Your task to perform on an android device: Go to wifi settings Image 0: 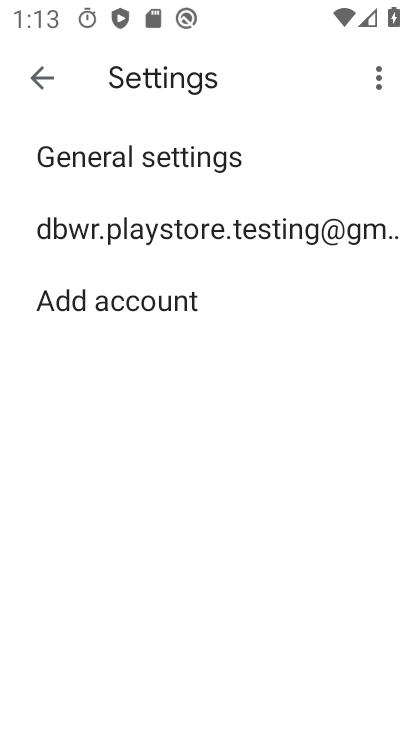
Step 0: press home button
Your task to perform on an android device: Go to wifi settings Image 1: 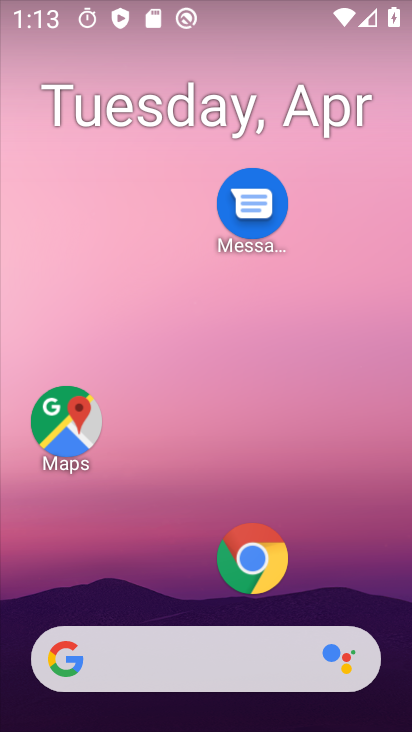
Step 1: drag from (255, 478) to (291, 41)
Your task to perform on an android device: Go to wifi settings Image 2: 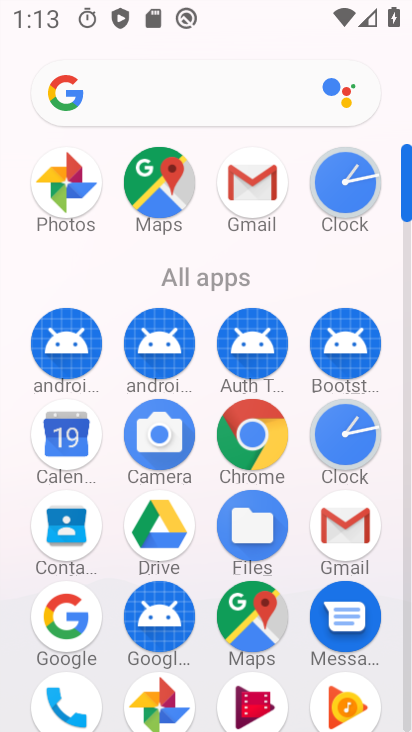
Step 2: drag from (206, 598) to (229, 216)
Your task to perform on an android device: Go to wifi settings Image 3: 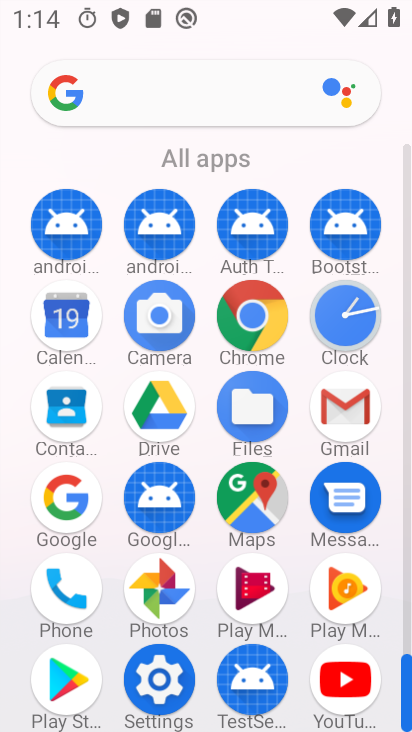
Step 3: click (162, 657)
Your task to perform on an android device: Go to wifi settings Image 4: 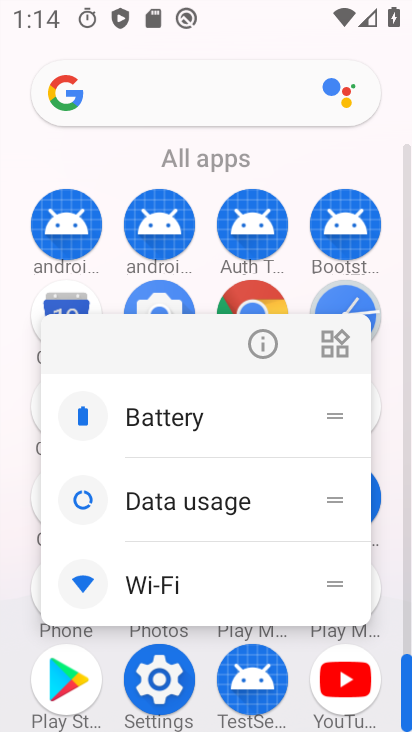
Step 4: click (255, 344)
Your task to perform on an android device: Go to wifi settings Image 5: 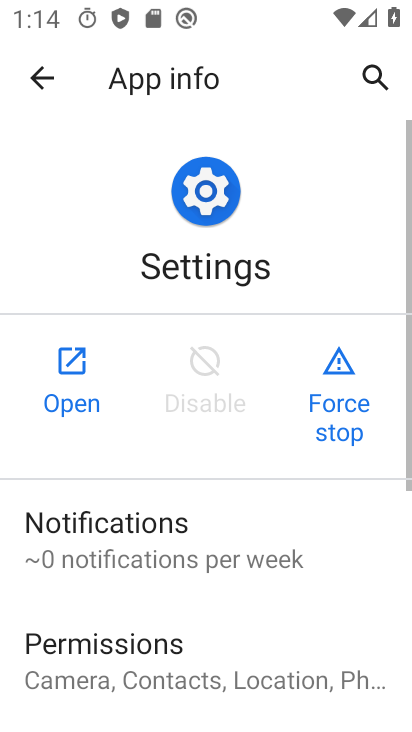
Step 5: click (76, 383)
Your task to perform on an android device: Go to wifi settings Image 6: 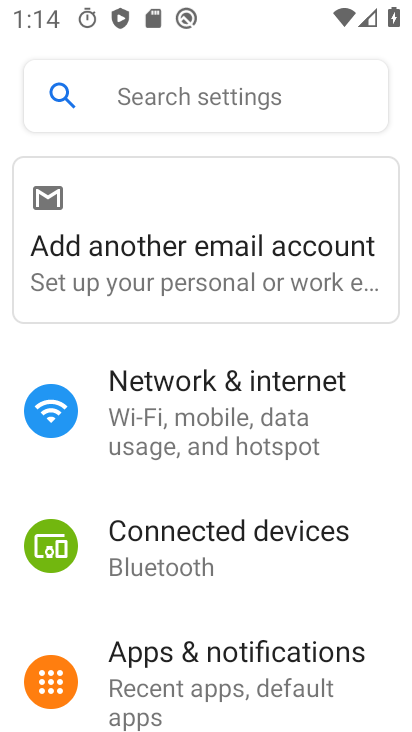
Step 6: click (158, 410)
Your task to perform on an android device: Go to wifi settings Image 7: 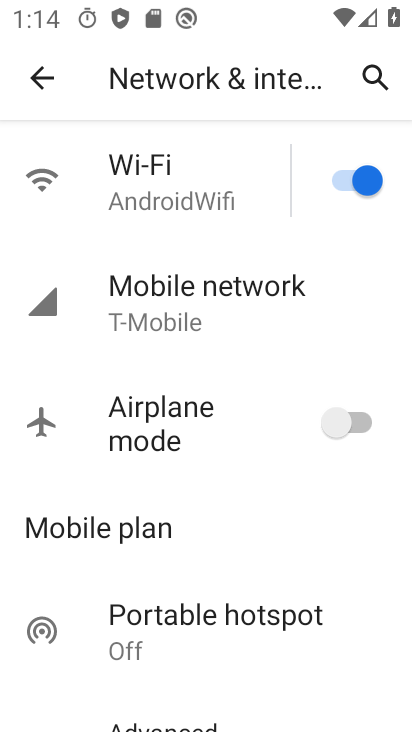
Step 7: click (170, 193)
Your task to perform on an android device: Go to wifi settings Image 8: 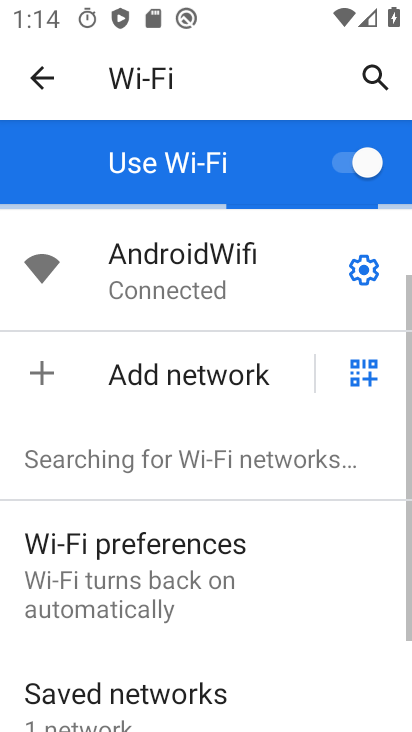
Step 8: click (353, 279)
Your task to perform on an android device: Go to wifi settings Image 9: 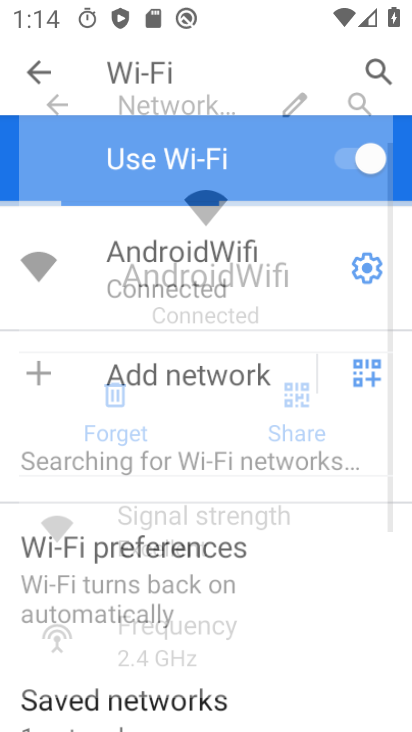
Step 9: task complete